Your task to perform on an android device: turn off data saver in the chrome app Image 0: 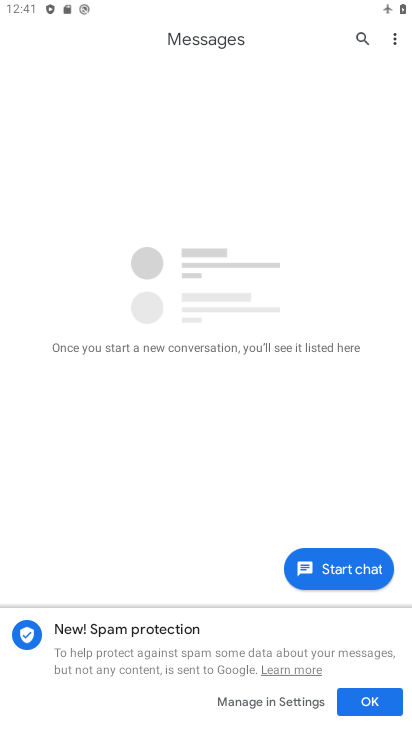
Step 0: task impossible